Your task to perform on an android device: Go to Google maps Image 0: 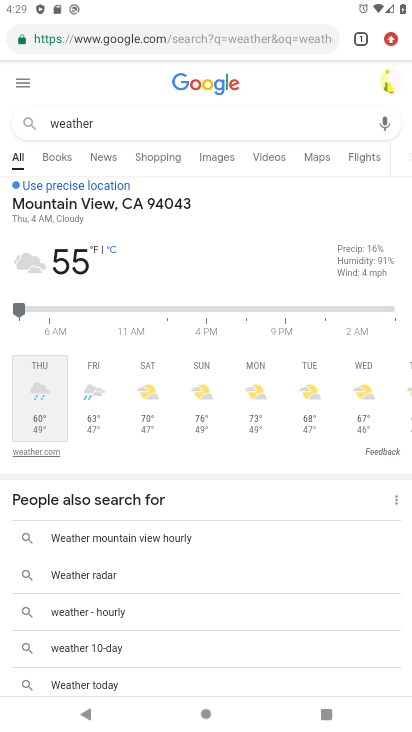
Step 0: click (202, 716)
Your task to perform on an android device: Go to Google maps Image 1: 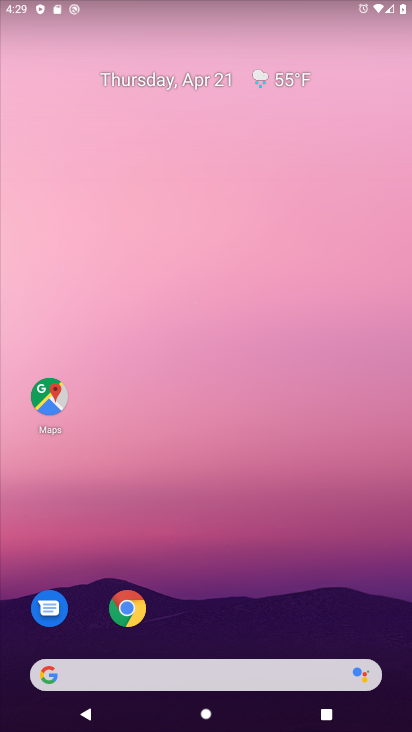
Step 1: click (40, 406)
Your task to perform on an android device: Go to Google maps Image 2: 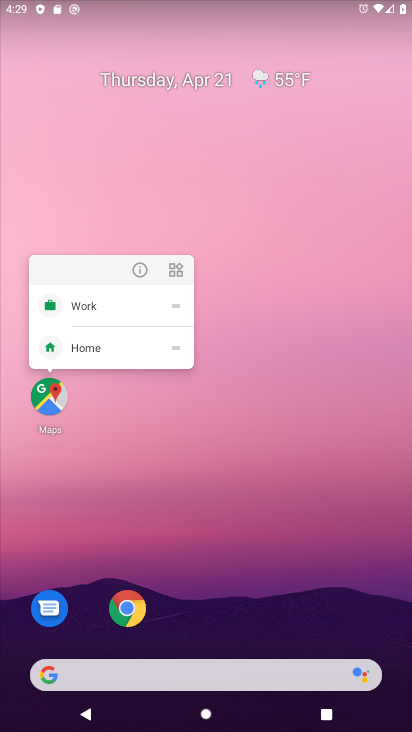
Step 2: click (40, 406)
Your task to perform on an android device: Go to Google maps Image 3: 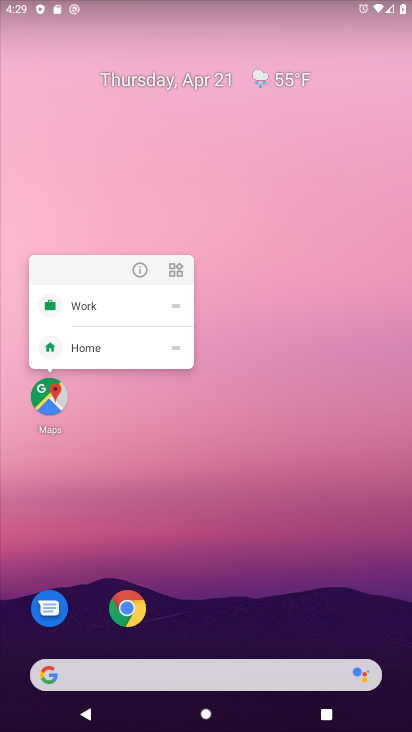
Step 3: click (40, 405)
Your task to perform on an android device: Go to Google maps Image 4: 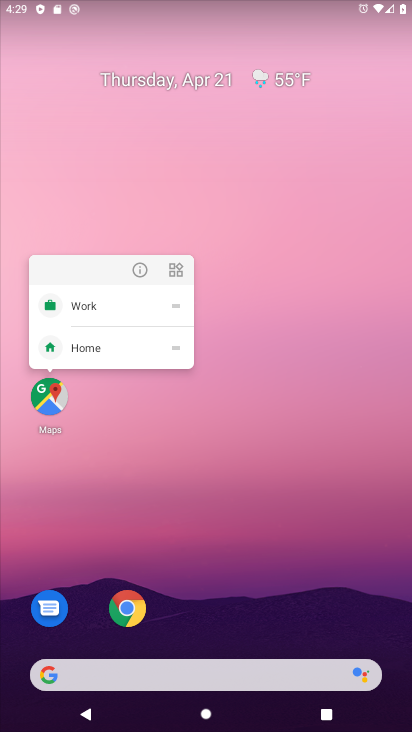
Step 4: click (131, 489)
Your task to perform on an android device: Go to Google maps Image 5: 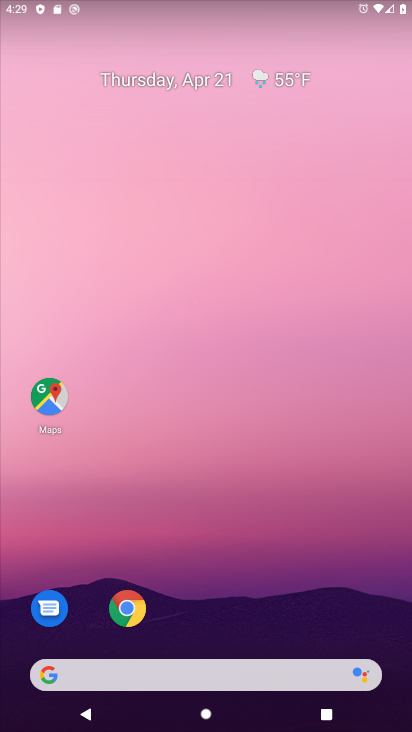
Step 5: click (51, 393)
Your task to perform on an android device: Go to Google maps Image 6: 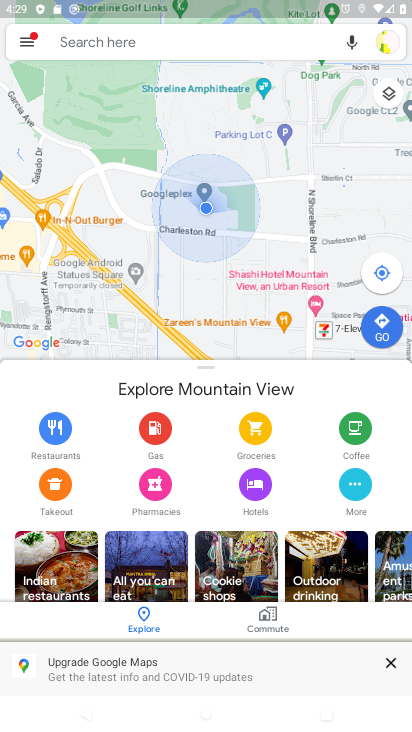
Step 6: task complete